Your task to perform on an android device: move a message to another label in the gmail app Image 0: 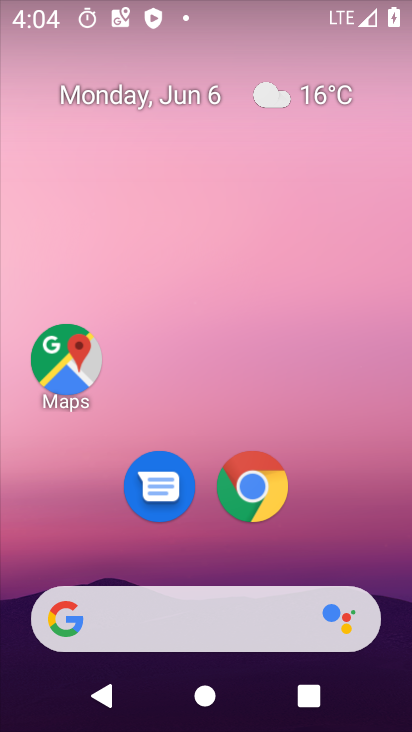
Step 0: drag from (332, 508) to (368, 129)
Your task to perform on an android device: move a message to another label in the gmail app Image 1: 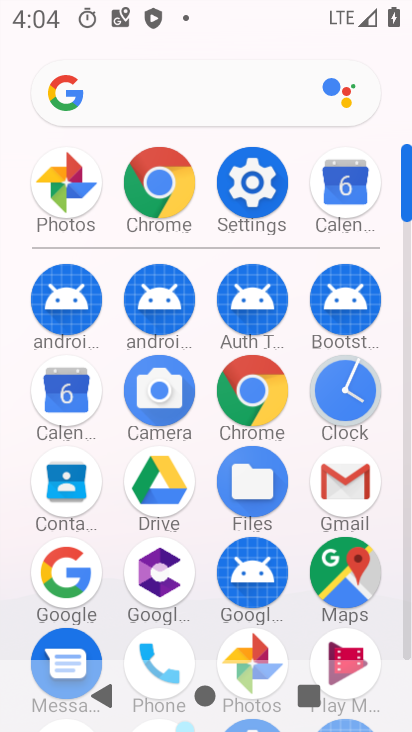
Step 1: click (351, 500)
Your task to perform on an android device: move a message to another label in the gmail app Image 2: 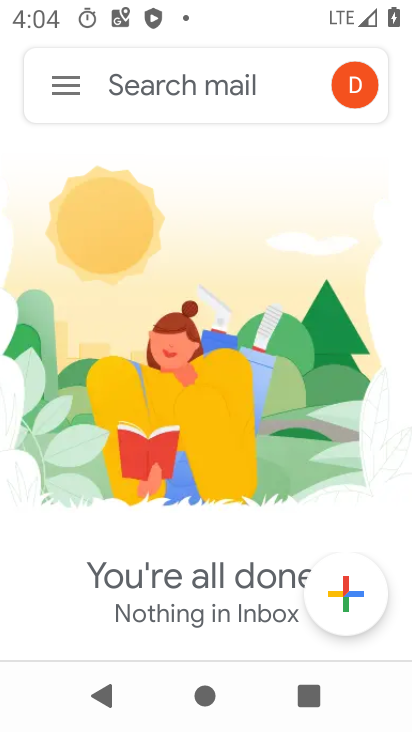
Step 2: click (58, 104)
Your task to perform on an android device: move a message to another label in the gmail app Image 3: 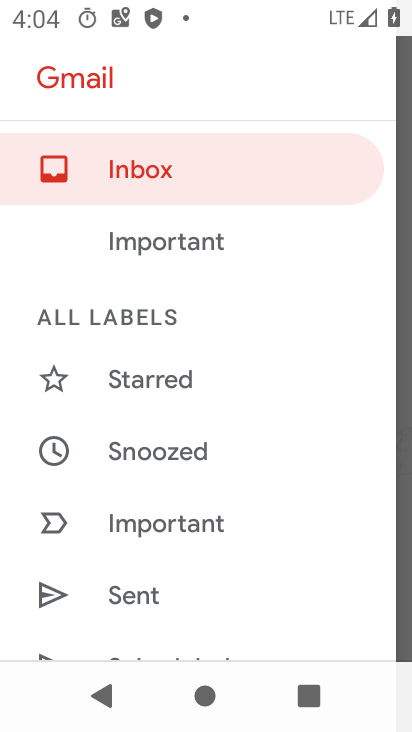
Step 3: drag from (153, 534) to (284, 113)
Your task to perform on an android device: move a message to another label in the gmail app Image 4: 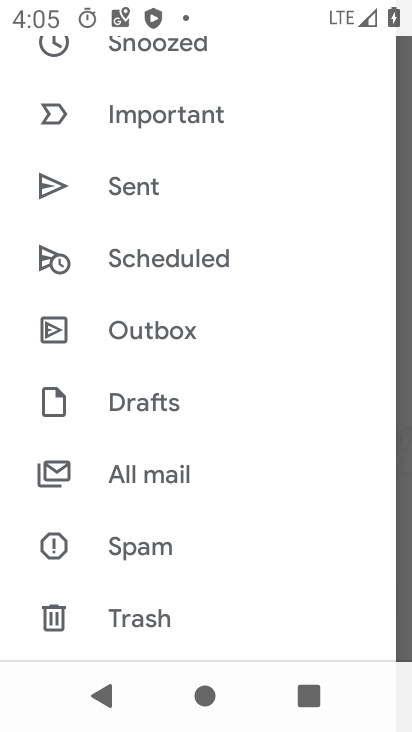
Step 4: click (138, 474)
Your task to perform on an android device: move a message to another label in the gmail app Image 5: 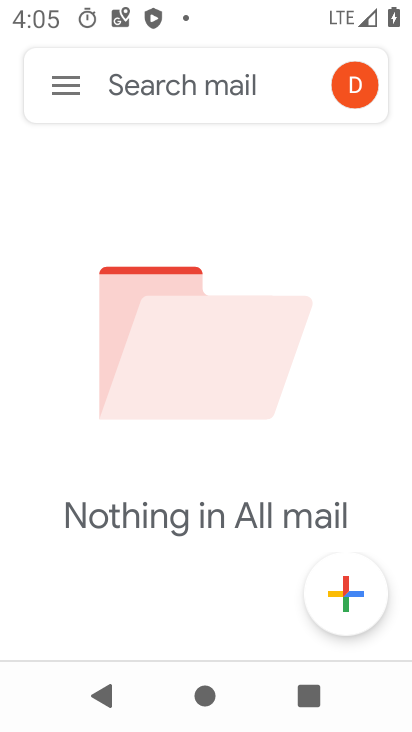
Step 5: task complete